Your task to perform on an android device: open chrome and create a bookmark for the current page Image 0: 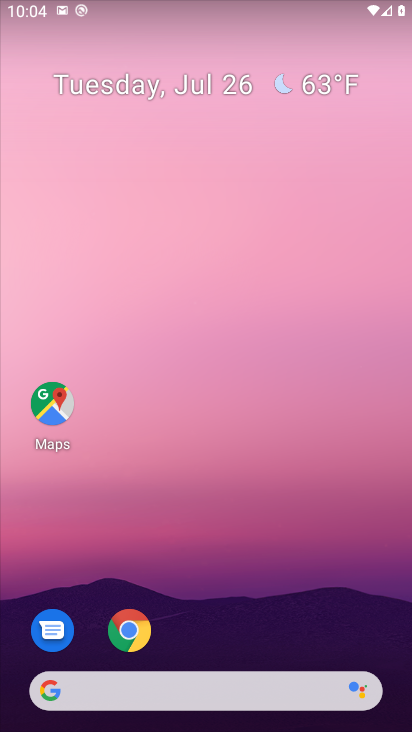
Step 0: drag from (208, 651) to (248, 222)
Your task to perform on an android device: open chrome and create a bookmark for the current page Image 1: 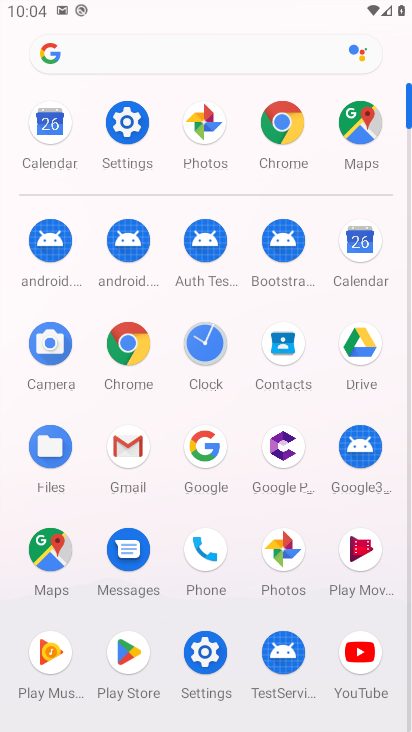
Step 1: click (123, 344)
Your task to perform on an android device: open chrome and create a bookmark for the current page Image 2: 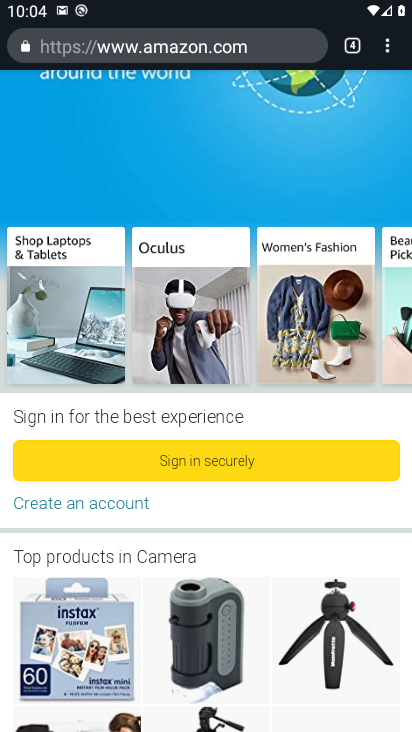
Step 2: click (384, 52)
Your task to perform on an android device: open chrome and create a bookmark for the current page Image 3: 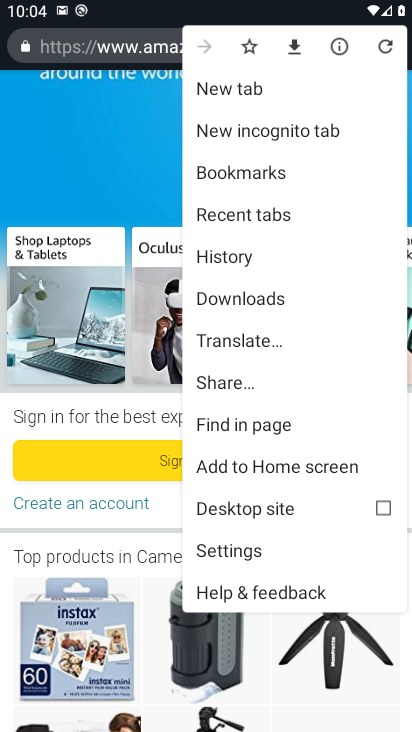
Step 3: click (248, 41)
Your task to perform on an android device: open chrome and create a bookmark for the current page Image 4: 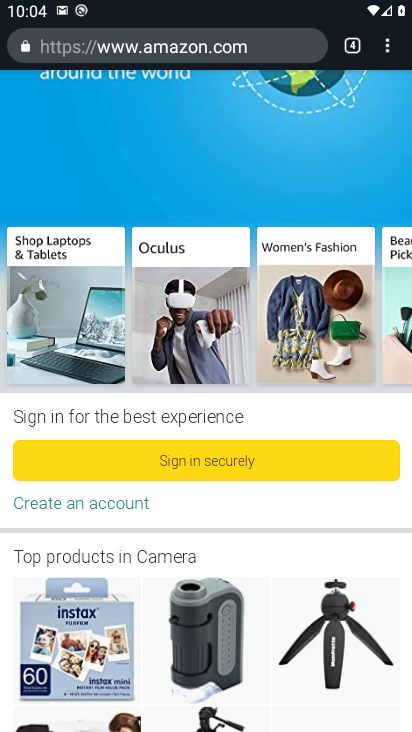
Step 4: task complete